Your task to perform on an android device: change the clock display to show seconds Image 0: 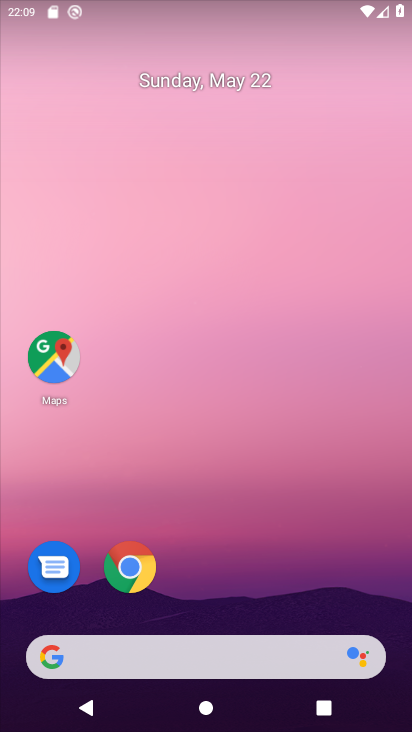
Step 0: press home button
Your task to perform on an android device: change the clock display to show seconds Image 1: 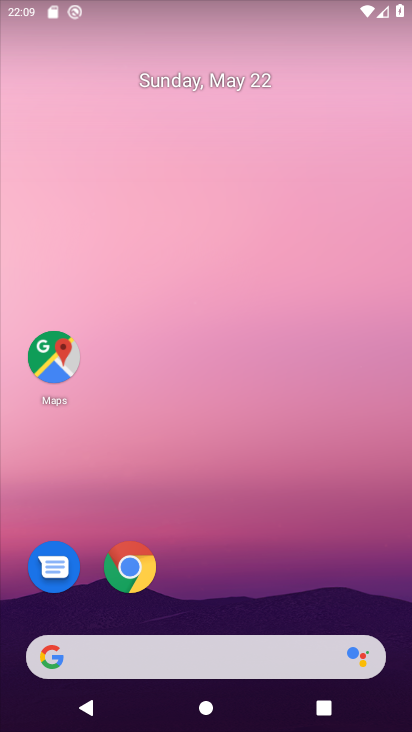
Step 1: drag from (219, 615) to (179, 87)
Your task to perform on an android device: change the clock display to show seconds Image 2: 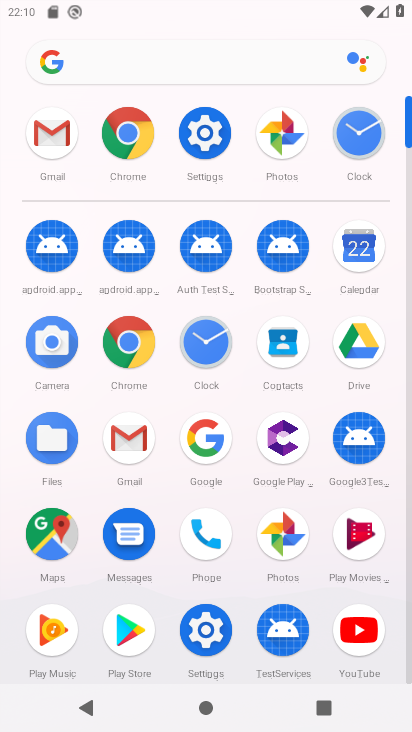
Step 2: click (207, 335)
Your task to perform on an android device: change the clock display to show seconds Image 3: 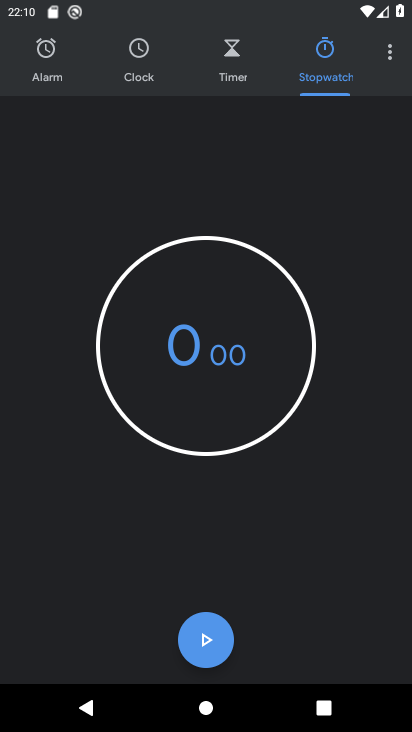
Step 3: click (396, 48)
Your task to perform on an android device: change the clock display to show seconds Image 4: 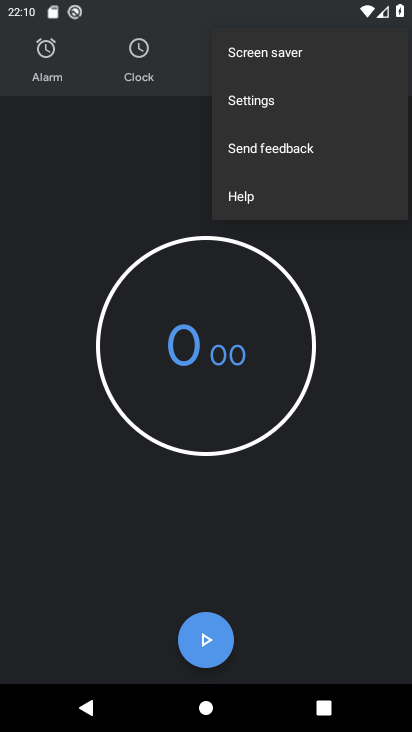
Step 4: click (294, 105)
Your task to perform on an android device: change the clock display to show seconds Image 5: 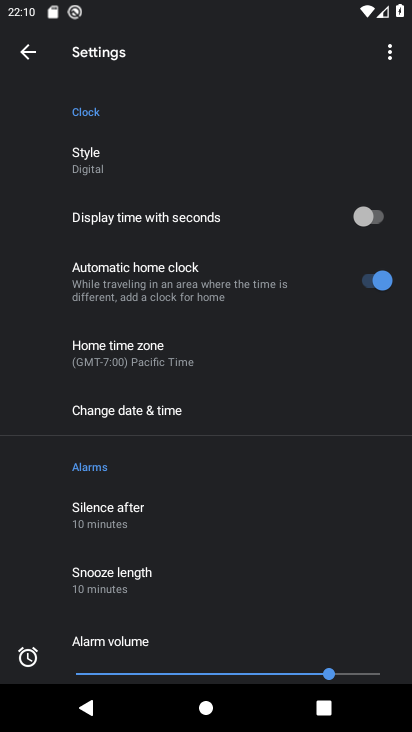
Step 5: click (377, 204)
Your task to perform on an android device: change the clock display to show seconds Image 6: 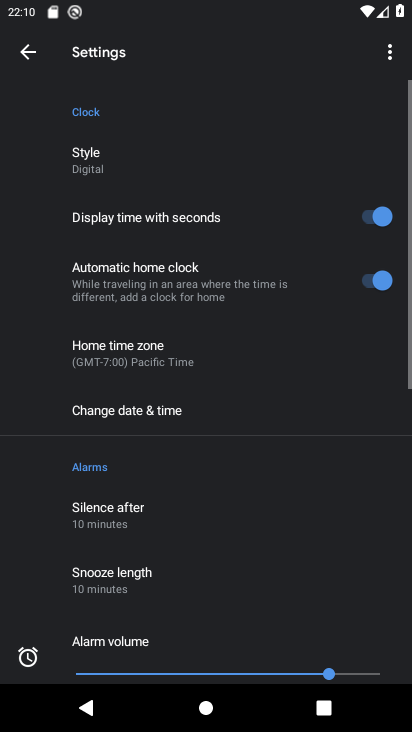
Step 6: task complete